Your task to perform on an android device: search for starred emails in the gmail app Image 0: 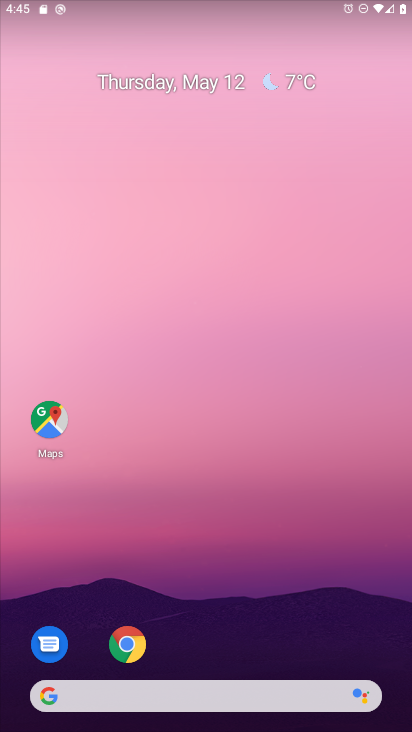
Step 0: drag from (233, 586) to (273, 135)
Your task to perform on an android device: search for starred emails in the gmail app Image 1: 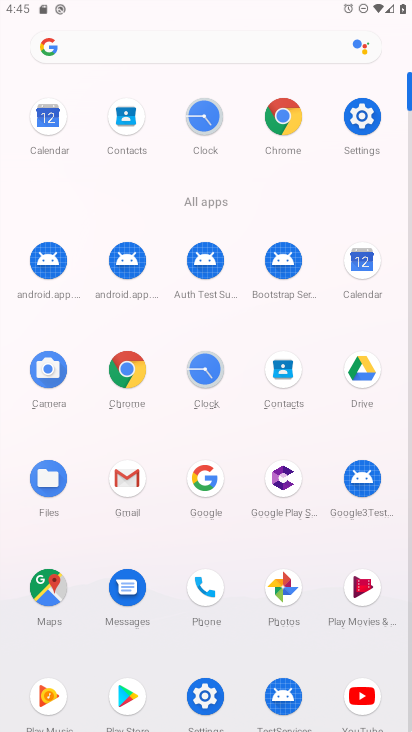
Step 1: click (123, 475)
Your task to perform on an android device: search for starred emails in the gmail app Image 2: 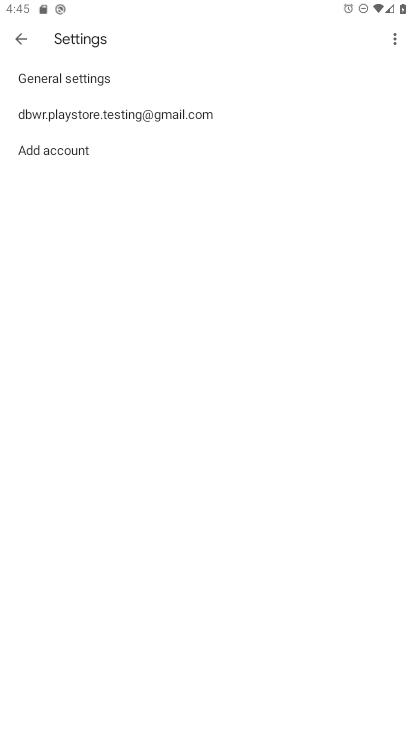
Step 2: click (24, 35)
Your task to perform on an android device: search for starred emails in the gmail app Image 3: 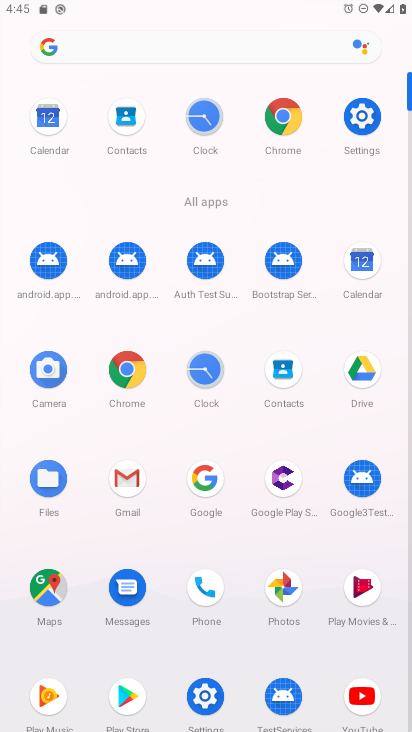
Step 3: click (132, 488)
Your task to perform on an android device: search for starred emails in the gmail app Image 4: 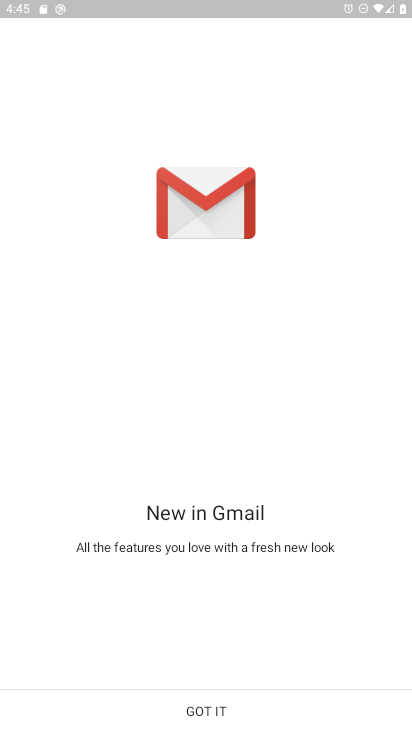
Step 4: click (196, 704)
Your task to perform on an android device: search for starred emails in the gmail app Image 5: 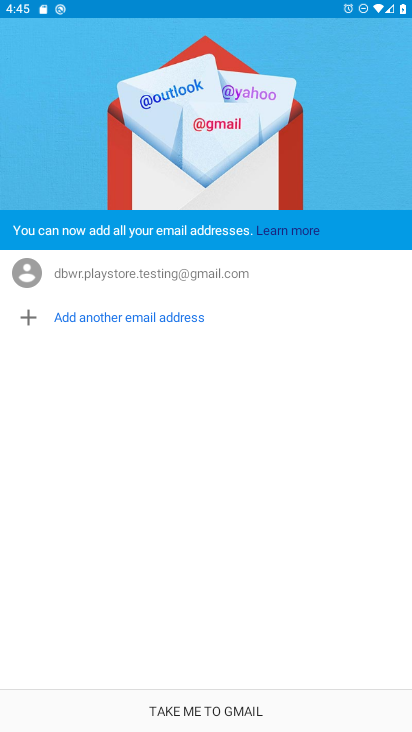
Step 5: click (197, 705)
Your task to perform on an android device: search for starred emails in the gmail app Image 6: 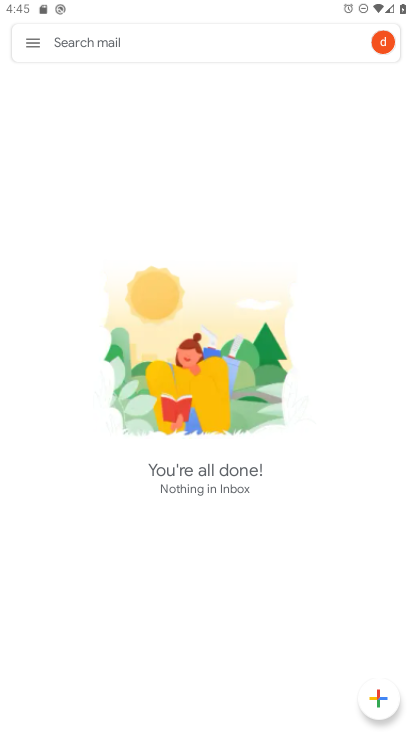
Step 6: click (36, 42)
Your task to perform on an android device: search for starred emails in the gmail app Image 7: 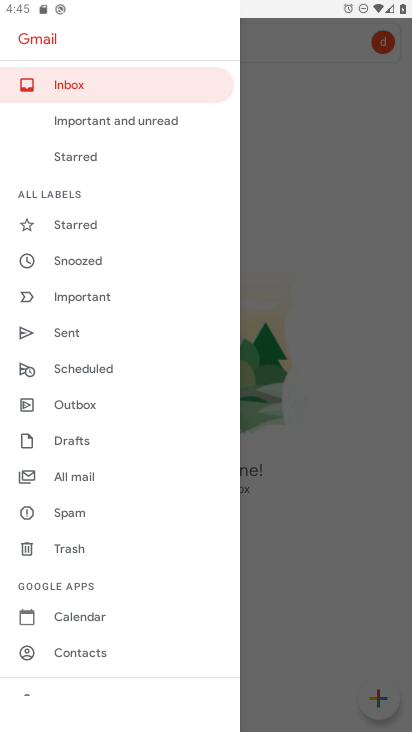
Step 7: click (89, 224)
Your task to perform on an android device: search for starred emails in the gmail app Image 8: 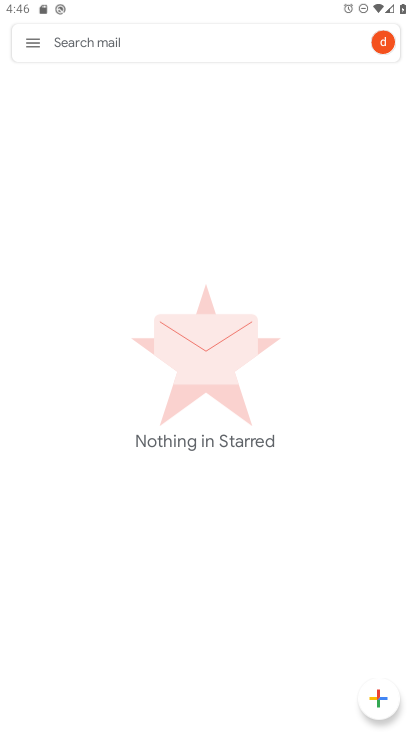
Step 8: task complete